Your task to perform on an android device: find which apps use the phone's location Image 0: 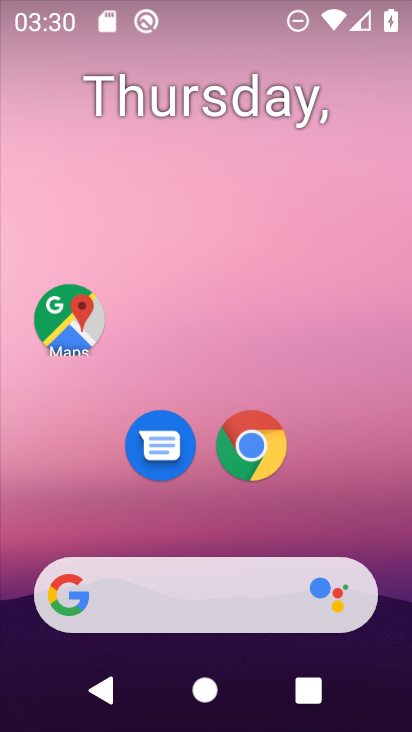
Step 0: drag from (339, 489) to (369, 7)
Your task to perform on an android device: find which apps use the phone's location Image 1: 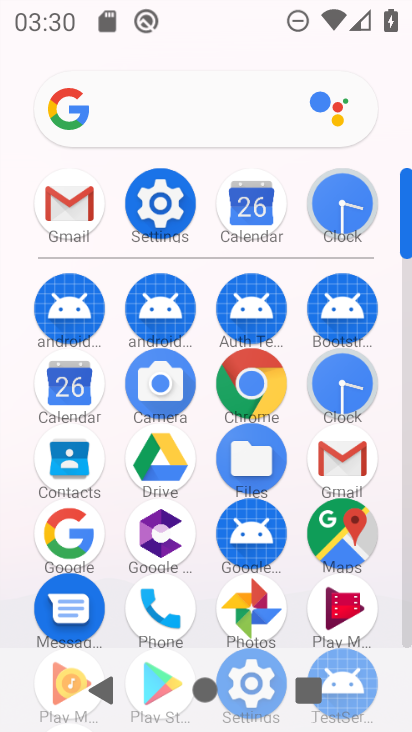
Step 1: click (156, 197)
Your task to perform on an android device: find which apps use the phone's location Image 2: 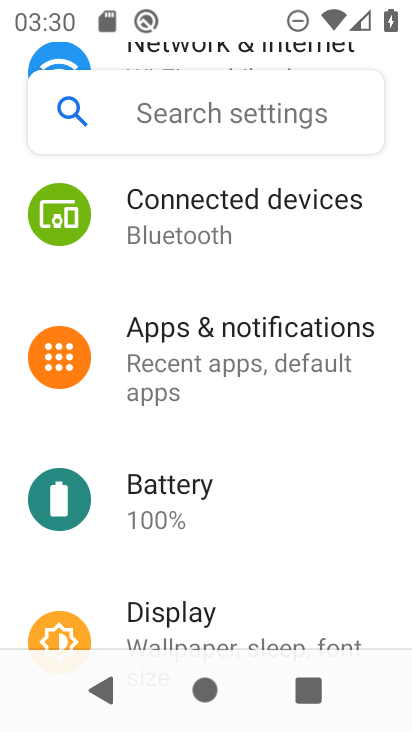
Step 2: drag from (223, 464) to (230, 177)
Your task to perform on an android device: find which apps use the phone's location Image 3: 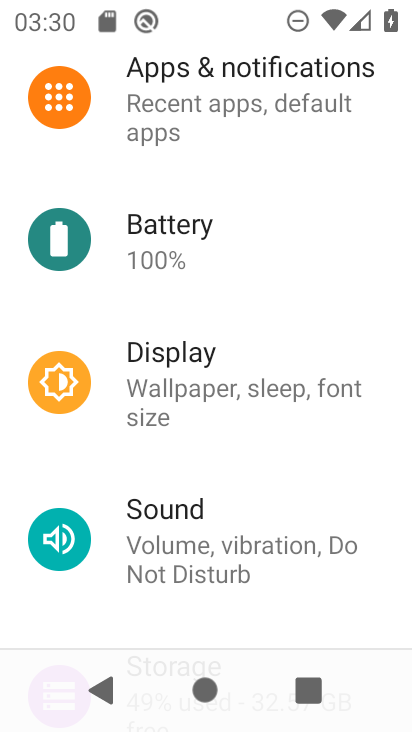
Step 3: drag from (238, 446) to (246, 118)
Your task to perform on an android device: find which apps use the phone's location Image 4: 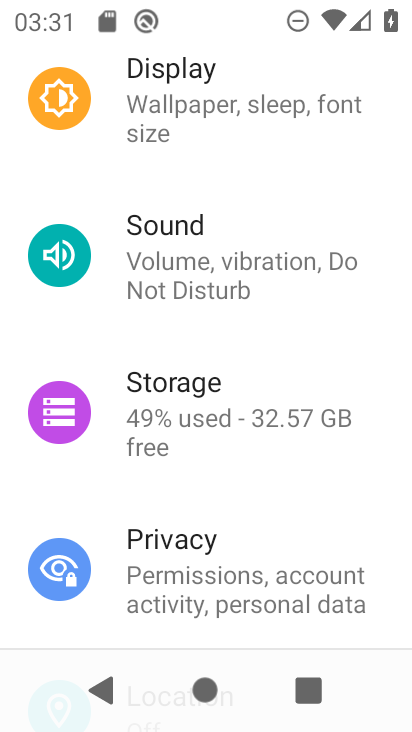
Step 4: drag from (243, 564) to (241, 128)
Your task to perform on an android device: find which apps use the phone's location Image 5: 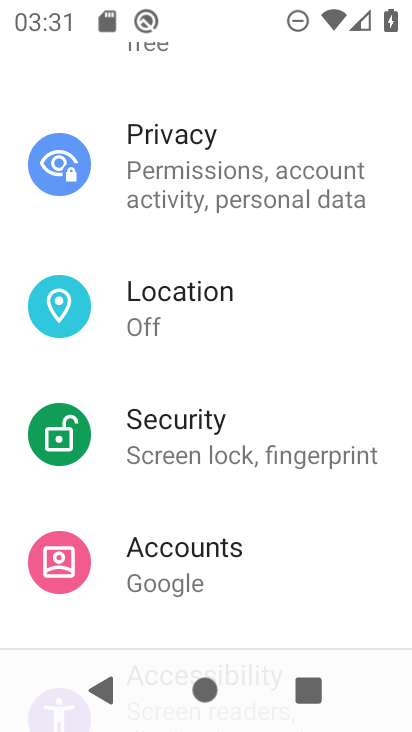
Step 5: click (145, 316)
Your task to perform on an android device: find which apps use the phone's location Image 6: 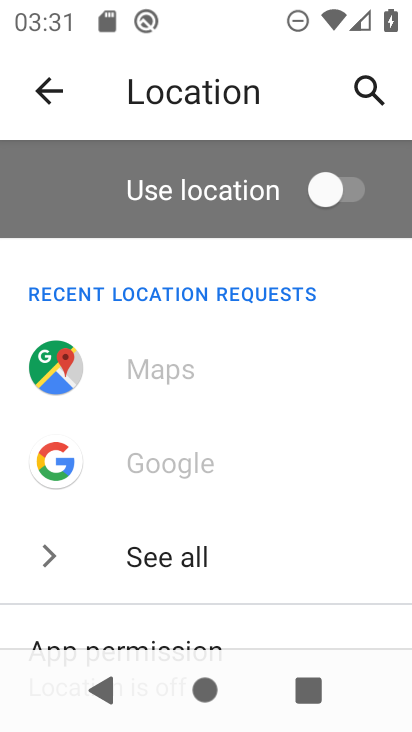
Step 6: drag from (232, 510) to (208, 182)
Your task to perform on an android device: find which apps use the phone's location Image 7: 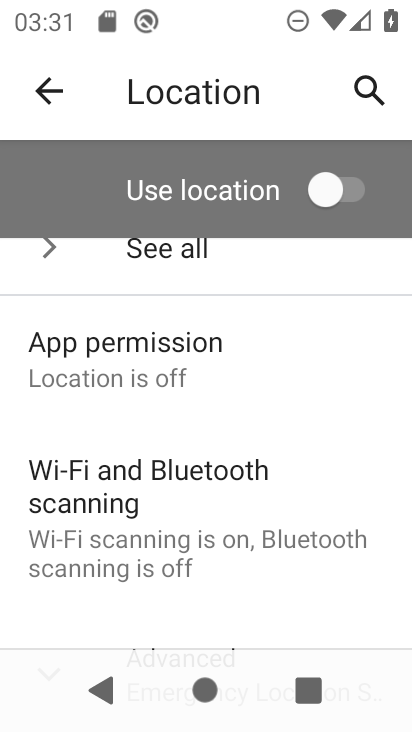
Step 7: click (107, 359)
Your task to perform on an android device: find which apps use the phone's location Image 8: 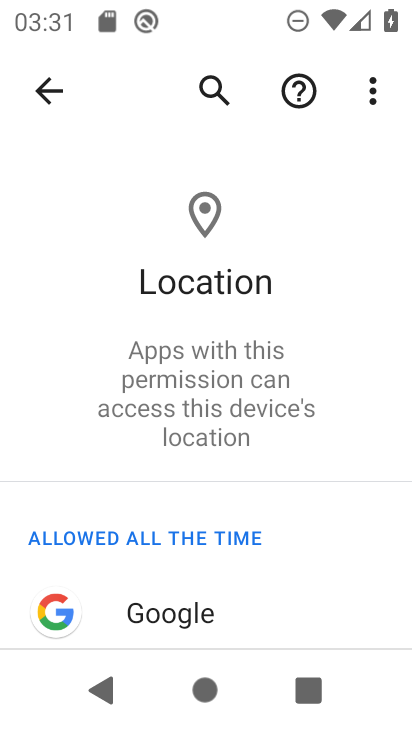
Step 8: task complete